Your task to perform on an android device: delete location history Image 0: 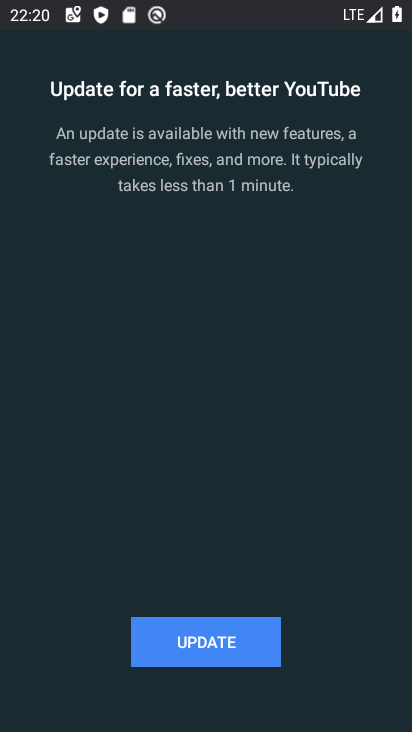
Step 0: press home button
Your task to perform on an android device: delete location history Image 1: 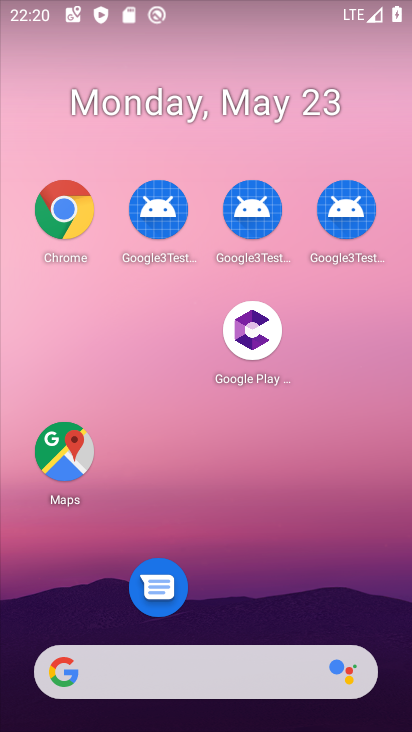
Step 1: drag from (246, 458) to (261, 118)
Your task to perform on an android device: delete location history Image 2: 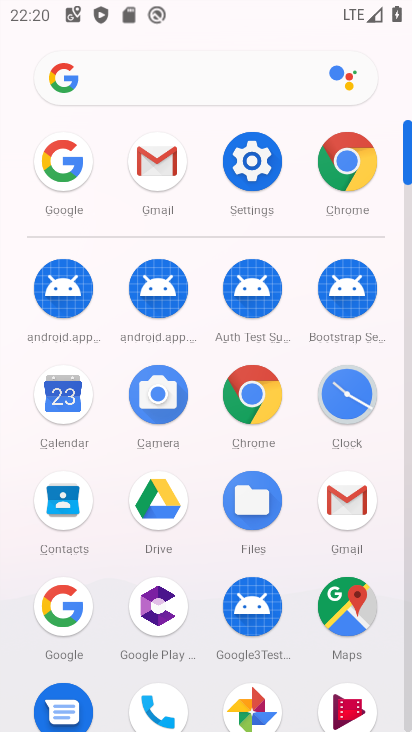
Step 2: click (242, 180)
Your task to perform on an android device: delete location history Image 3: 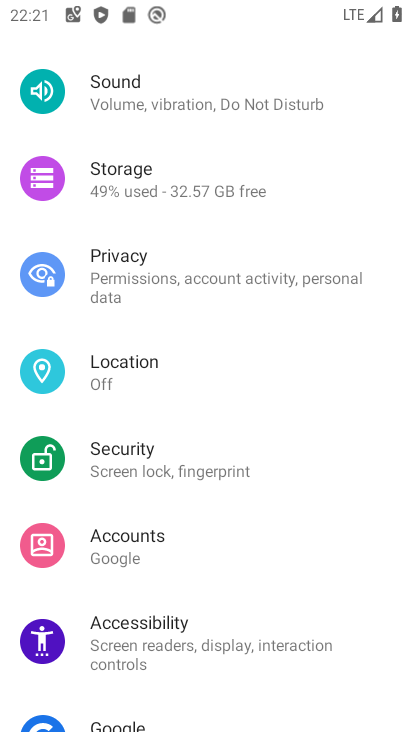
Step 3: click (88, 387)
Your task to perform on an android device: delete location history Image 4: 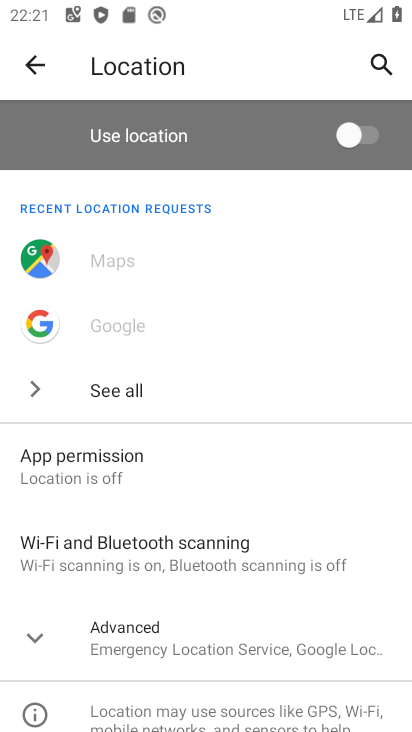
Step 4: drag from (96, 592) to (128, 164)
Your task to perform on an android device: delete location history Image 5: 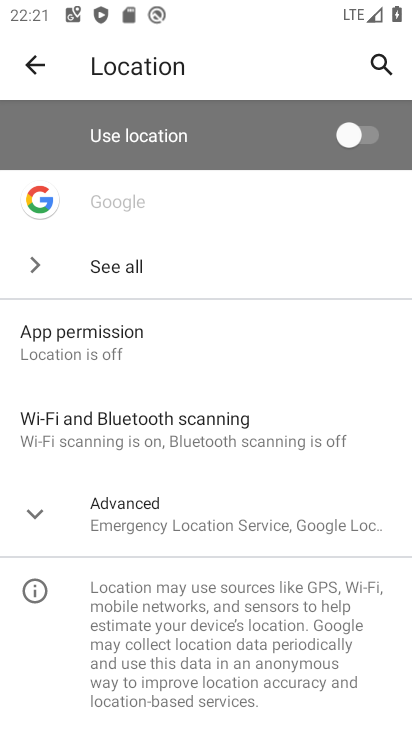
Step 5: click (233, 496)
Your task to perform on an android device: delete location history Image 6: 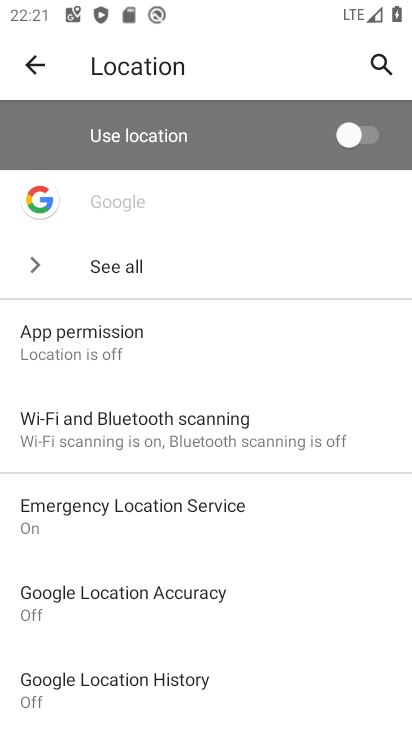
Step 6: click (155, 673)
Your task to perform on an android device: delete location history Image 7: 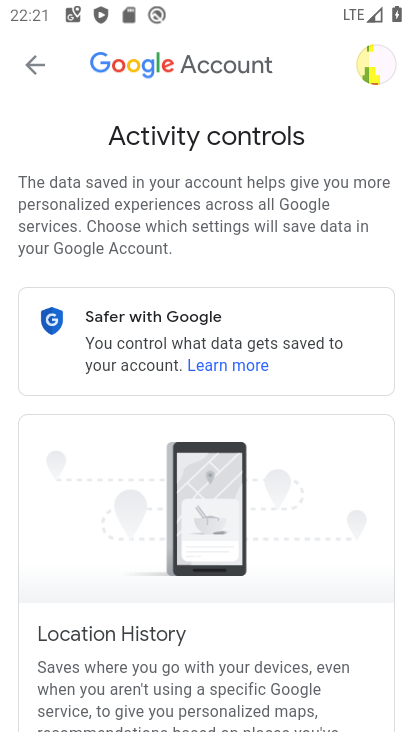
Step 7: drag from (165, 652) to (202, 254)
Your task to perform on an android device: delete location history Image 8: 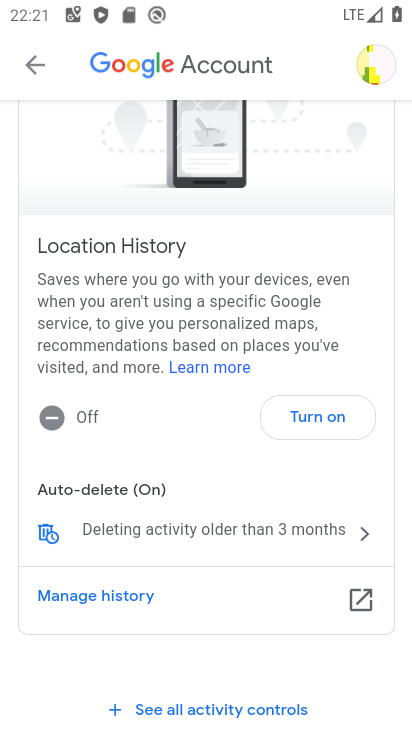
Step 8: click (242, 526)
Your task to perform on an android device: delete location history Image 9: 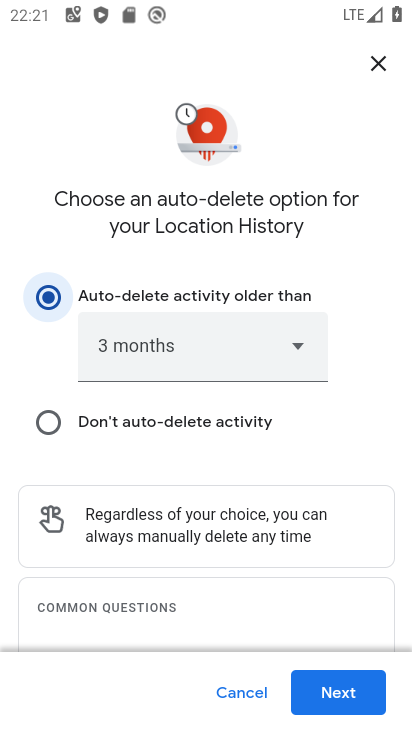
Step 9: click (327, 698)
Your task to perform on an android device: delete location history Image 10: 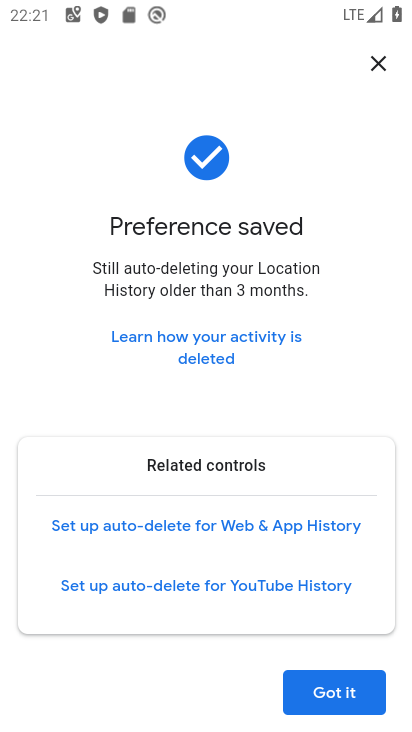
Step 10: click (322, 697)
Your task to perform on an android device: delete location history Image 11: 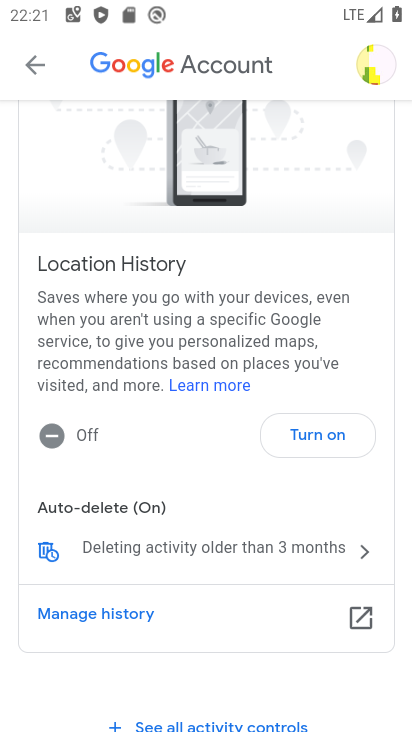
Step 11: task complete